Your task to perform on an android device: star an email in the gmail app Image 0: 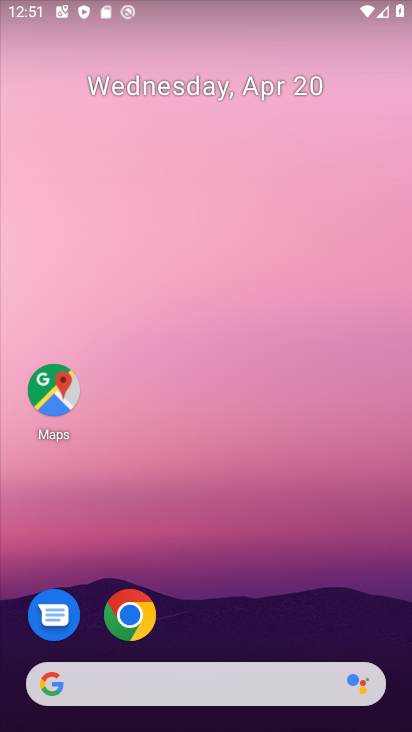
Step 0: drag from (348, 206) to (341, 121)
Your task to perform on an android device: star an email in the gmail app Image 1: 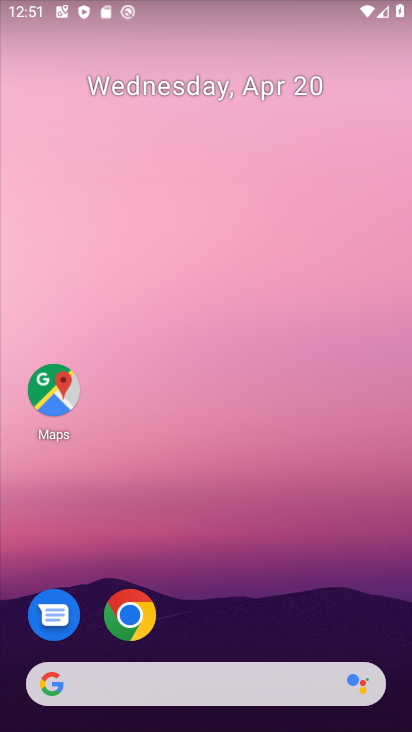
Step 1: drag from (387, 630) to (357, 189)
Your task to perform on an android device: star an email in the gmail app Image 2: 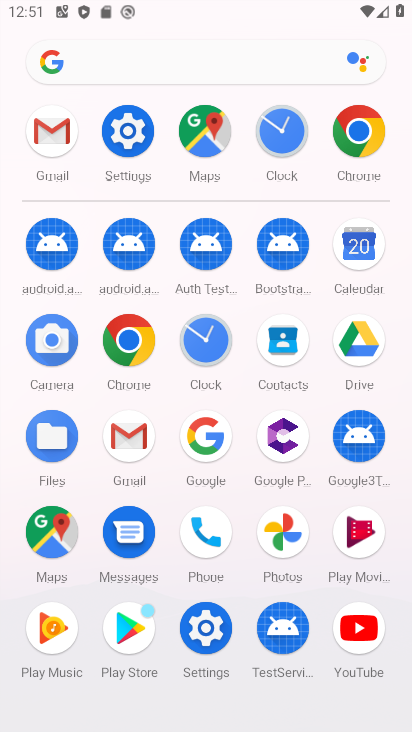
Step 2: click (59, 130)
Your task to perform on an android device: star an email in the gmail app Image 3: 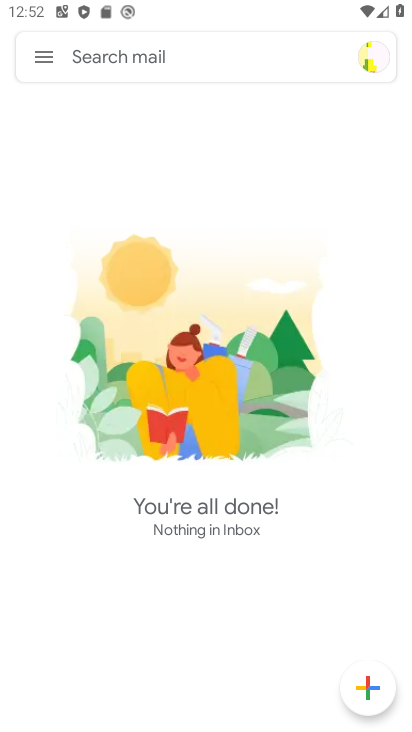
Step 3: click (42, 52)
Your task to perform on an android device: star an email in the gmail app Image 4: 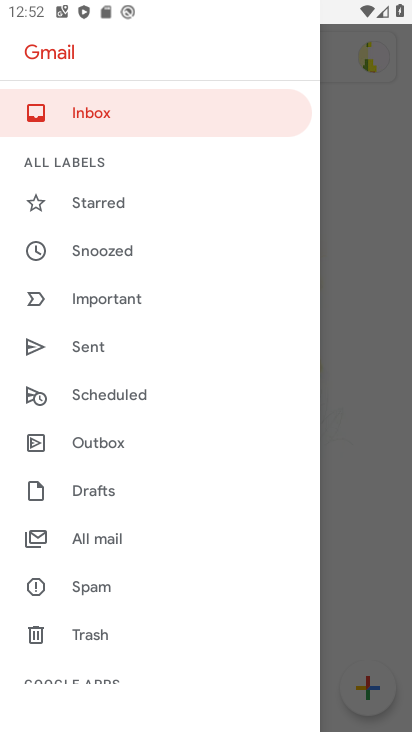
Step 4: drag from (178, 623) to (224, 309)
Your task to perform on an android device: star an email in the gmail app Image 5: 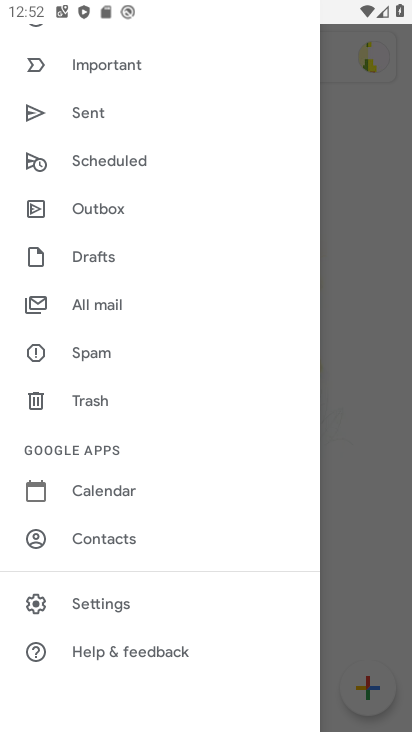
Step 5: drag from (207, 196) to (179, 573)
Your task to perform on an android device: star an email in the gmail app Image 6: 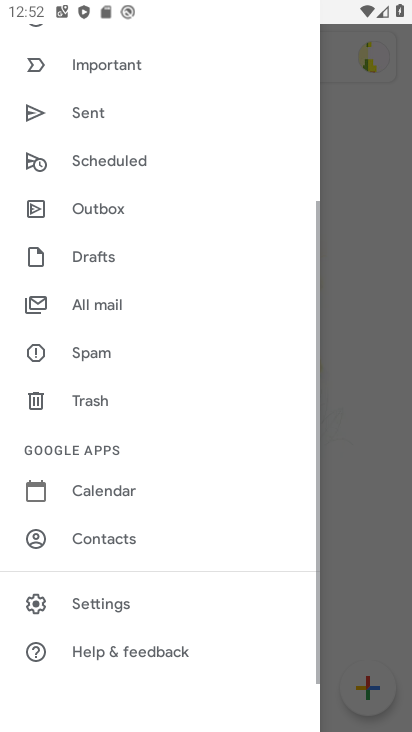
Step 6: drag from (200, 155) to (225, 527)
Your task to perform on an android device: star an email in the gmail app Image 7: 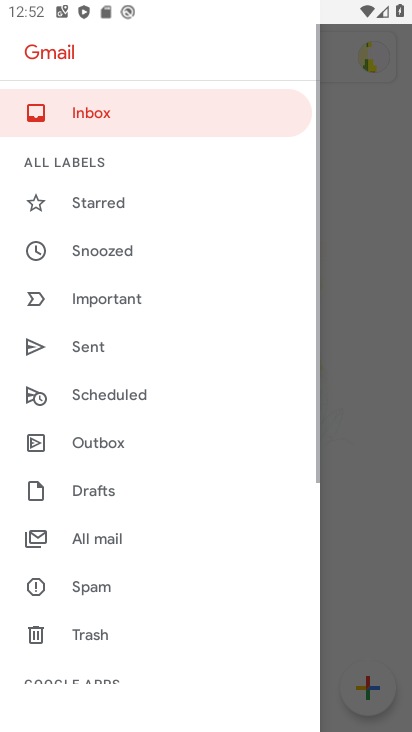
Step 7: drag from (227, 471) to (237, 510)
Your task to perform on an android device: star an email in the gmail app Image 8: 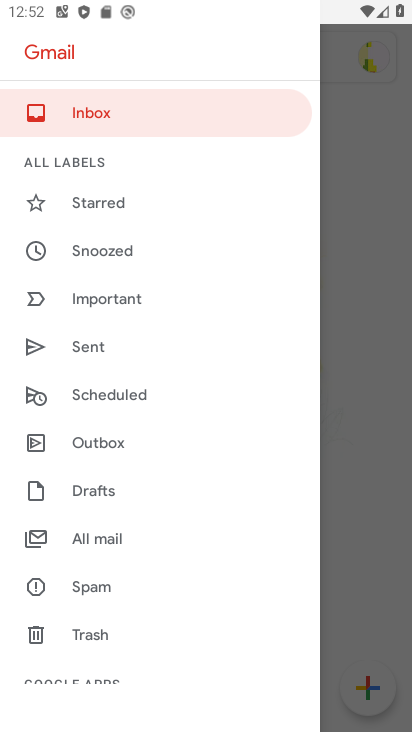
Step 8: click (89, 115)
Your task to perform on an android device: star an email in the gmail app Image 9: 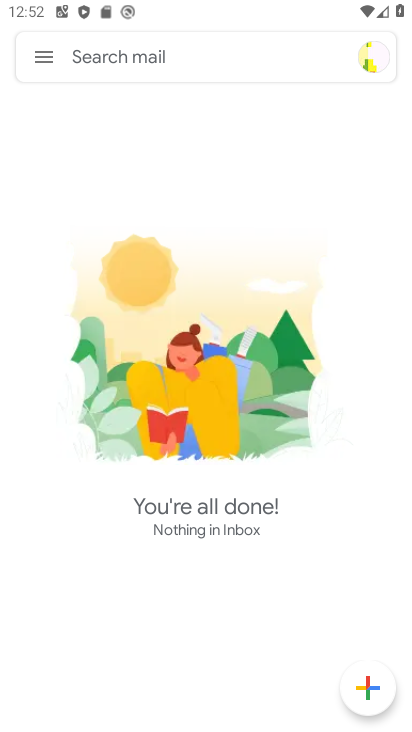
Step 9: task complete